Your task to perform on an android device: Open wifi settings Image 0: 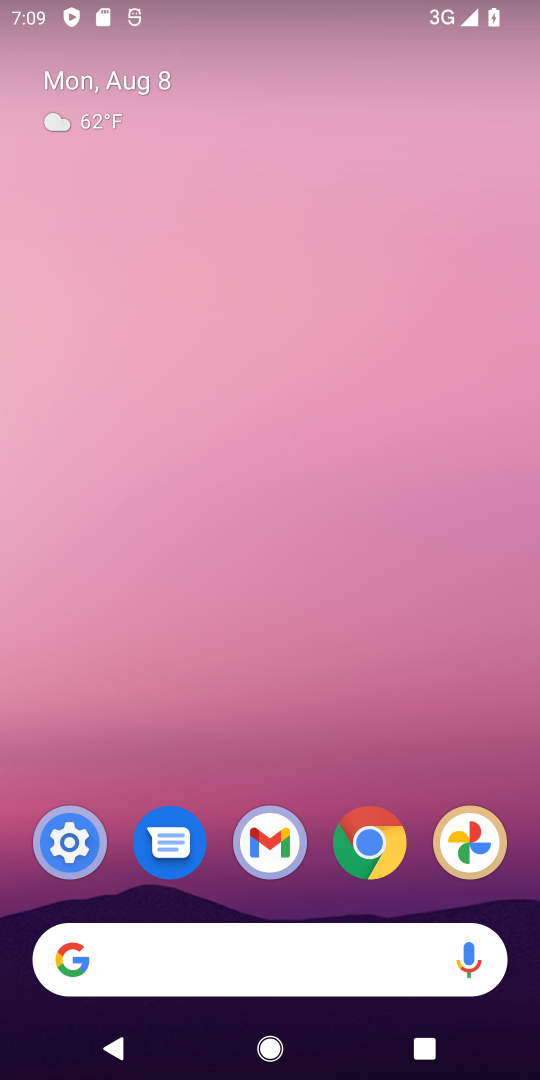
Step 0: drag from (236, 882) to (135, 38)
Your task to perform on an android device: Open wifi settings Image 1: 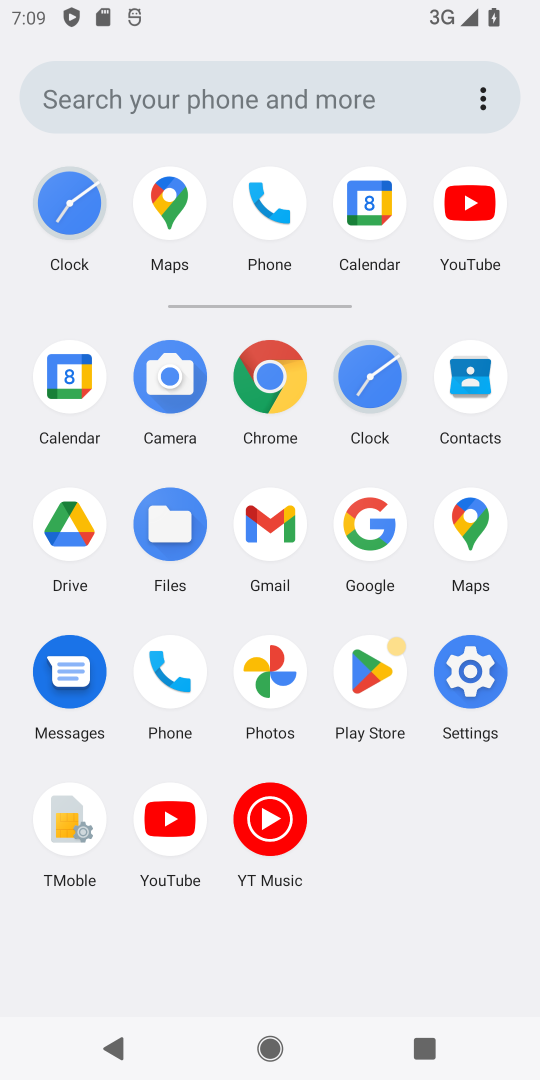
Step 1: click (465, 666)
Your task to perform on an android device: Open wifi settings Image 2: 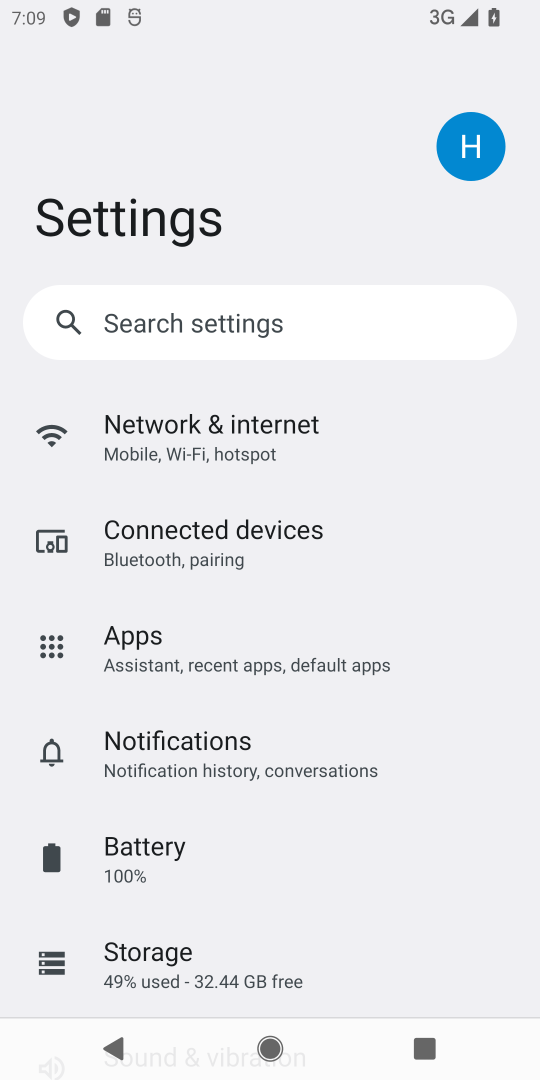
Step 2: click (190, 422)
Your task to perform on an android device: Open wifi settings Image 3: 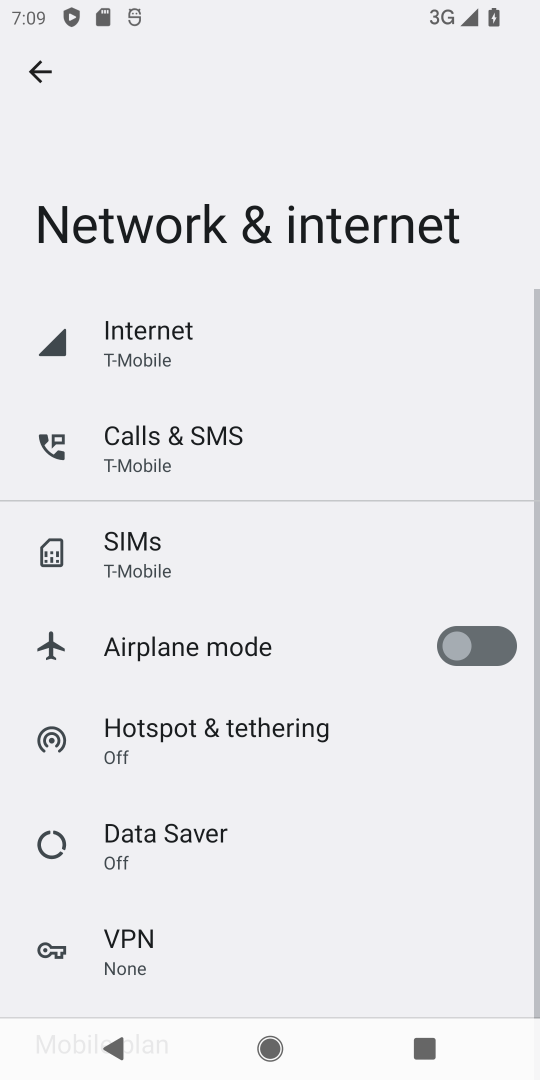
Step 3: click (181, 362)
Your task to perform on an android device: Open wifi settings Image 4: 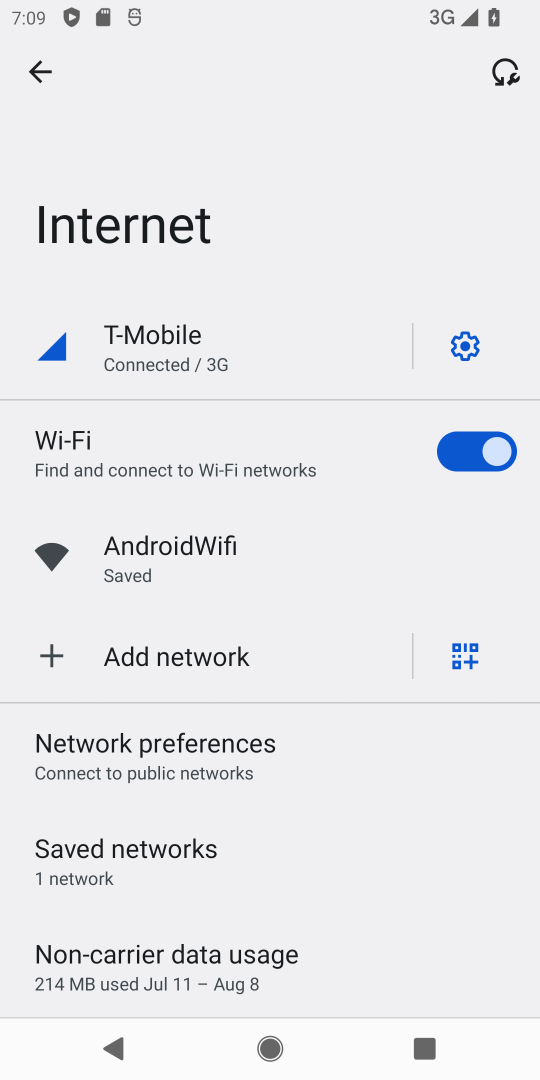
Step 4: task complete